Your task to perform on an android device: Open Android settings Image 0: 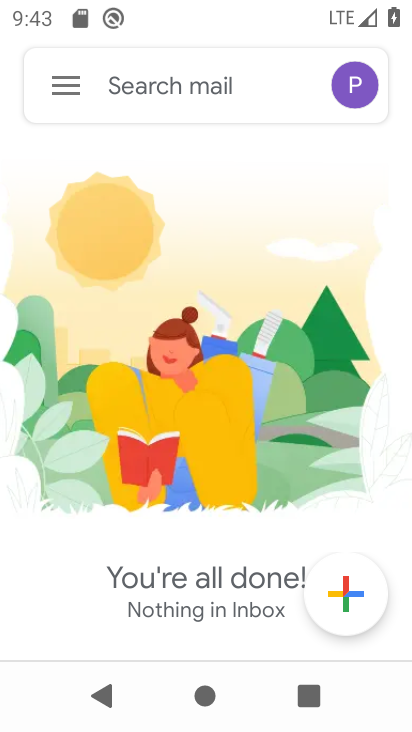
Step 0: press home button
Your task to perform on an android device: Open Android settings Image 1: 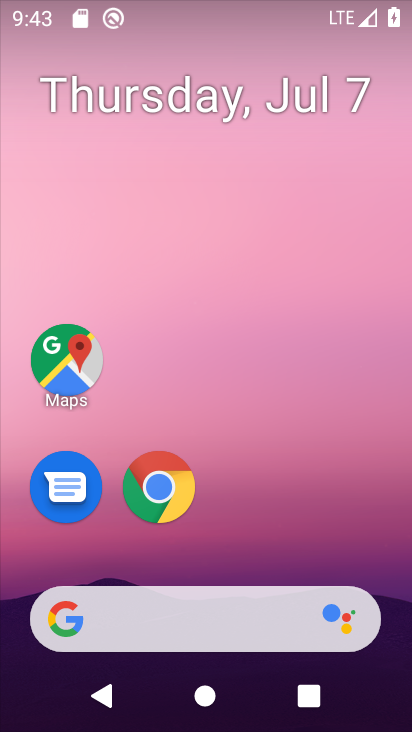
Step 1: drag from (324, 534) to (347, 105)
Your task to perform on an android device: Open Android settings Image 2: 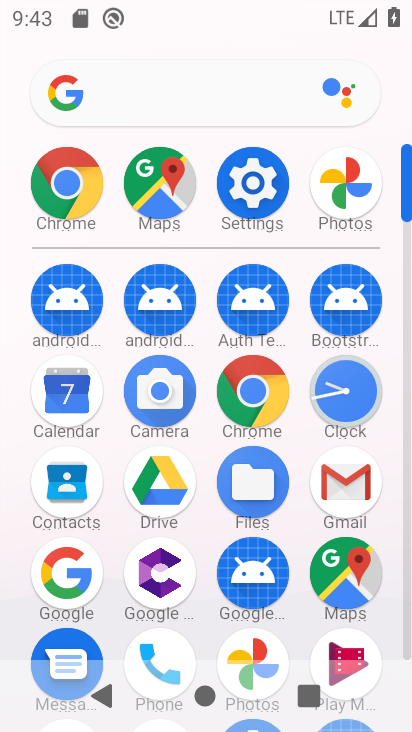
Step 2: click (263, 190)
Your task to perform on an android device: Open Android settings Image 3: 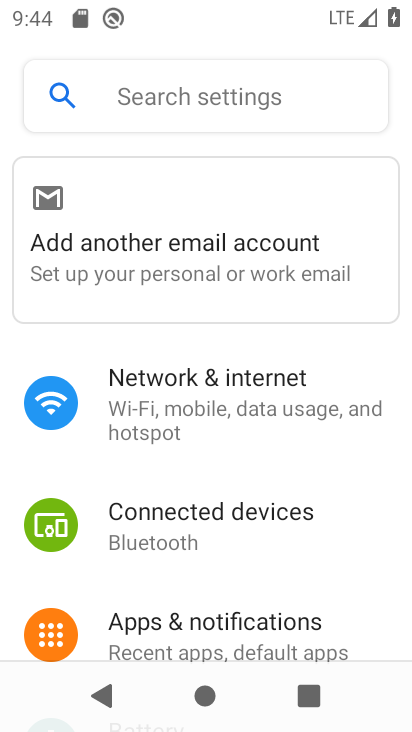
Step 3: drag from (359, 566) to (365, 343)
Your task to perform on an android device: Open Android settings Image 4: 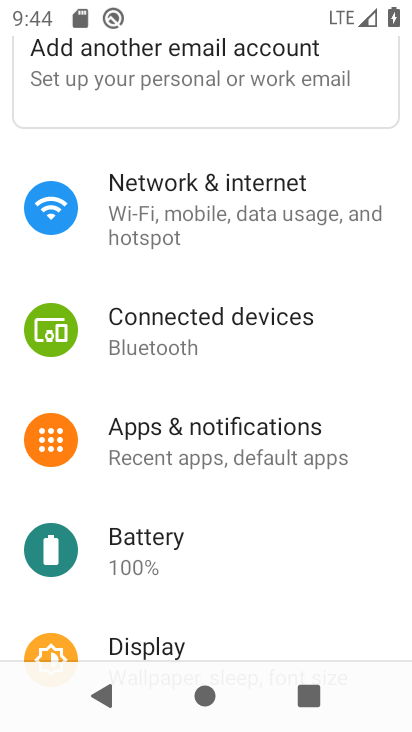
Step 4: drag from (373, 546) to (366, 361)
Your task to perform on an android device: Open Android settings Image 5: 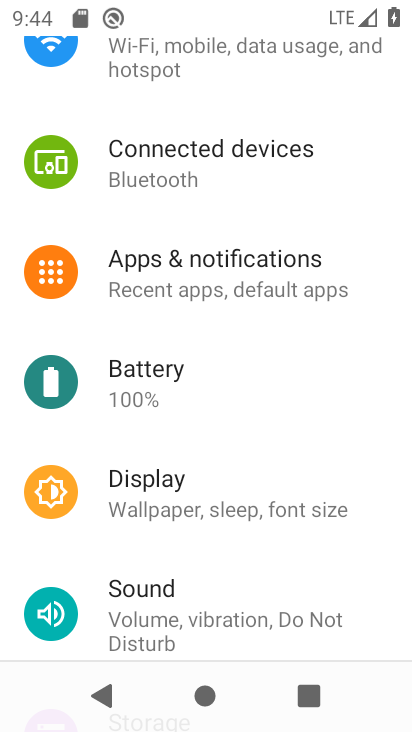
Step 5: drag from (364, 581) to (362, 335)
Your task to perform on an android device: Open Android settings Image 6: 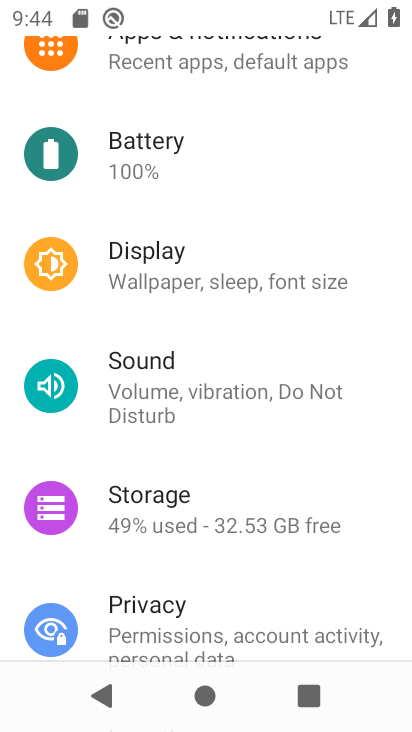
Step 6: drag from (372, 502) to (360, 328)
Your task to perform on an android device: Open Android settings Image 7: 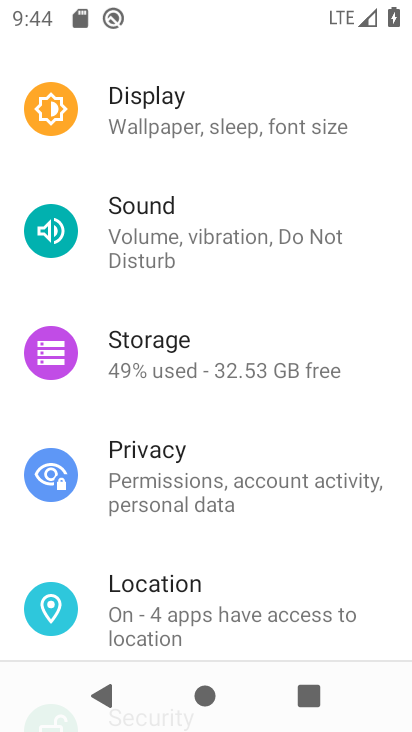
Step 7: drag from (377, 554) to (374, 323)
Your task to perform on an android device: Open Android settings Image 8: 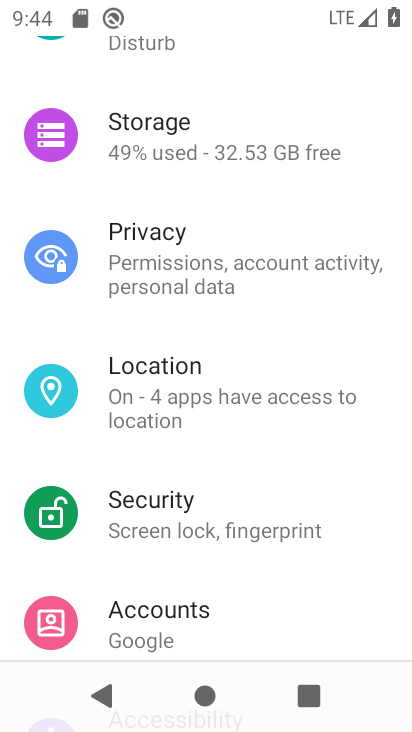
Step 8: drag from (362, 519) to (354, 387)
Your task to perform on an android device: Open Android settings Image 9: 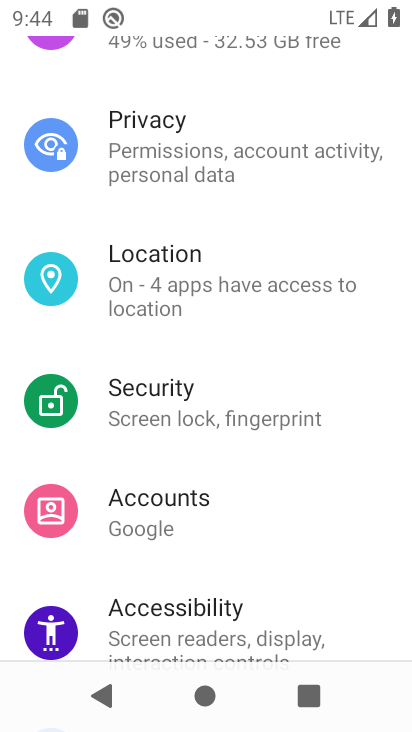
Step 9: drag from (356, 527) to (355, 385)
Your task to perform on an android device: Open Android settings Image 10: 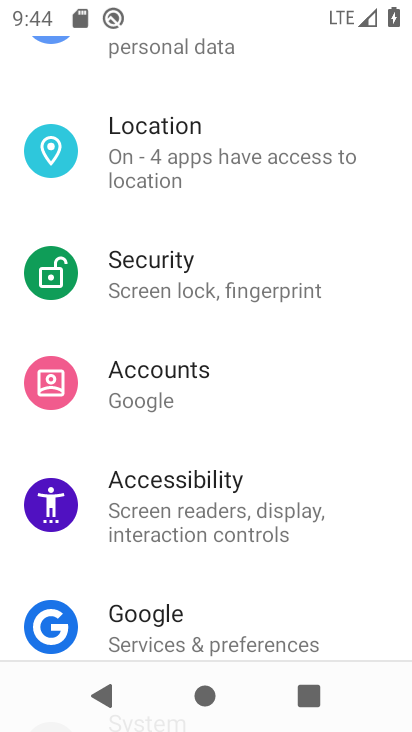
Step 10: drag from (349, 548) to (360, 397)
Your task to perform on an android device: Open Android settings Image 11: 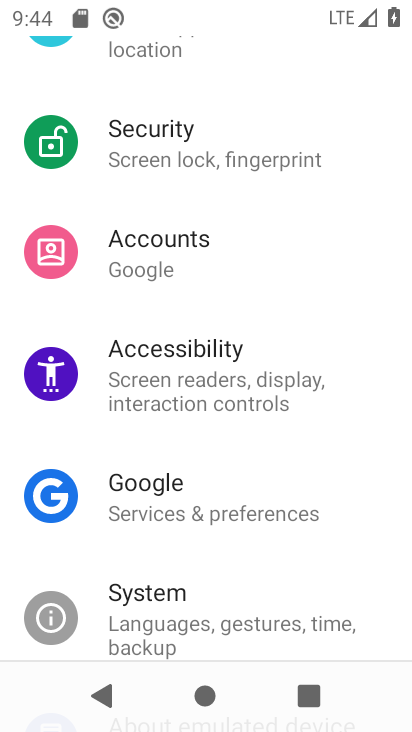
Step 11: drag from (347, 524) to (347, 372)
Your task to perform on an android device: Open Android settings Image 12: 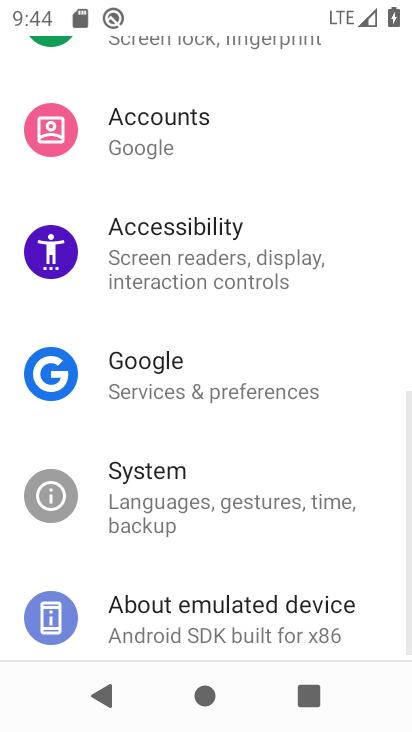
Step 12: click (324, 506)
Your task to perform on an android device: Open Android settings Image 13: 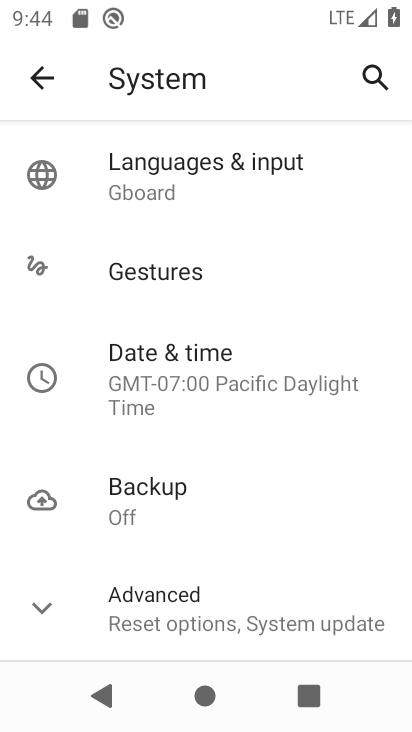
Step 13: click (285, 599)
Your task to perform on an android device: Open Android settings Image 14: 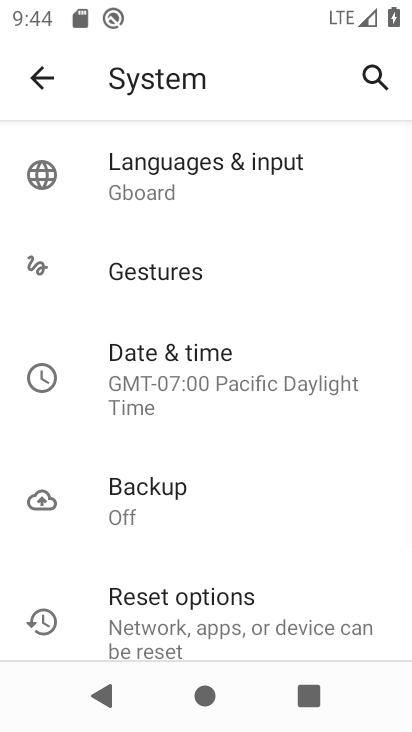
Step 14: task complete